Your task to perform on an android device: Toggle the flashlight Image 0: 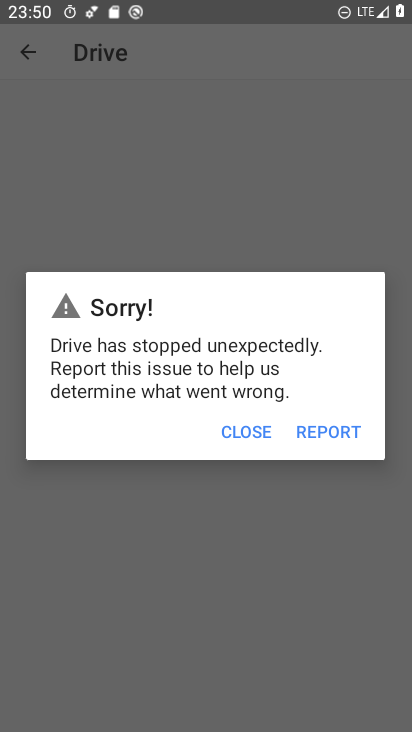
Step 0: press home button
Your task to perform on an android device: Toggle the flashlight Image 1: 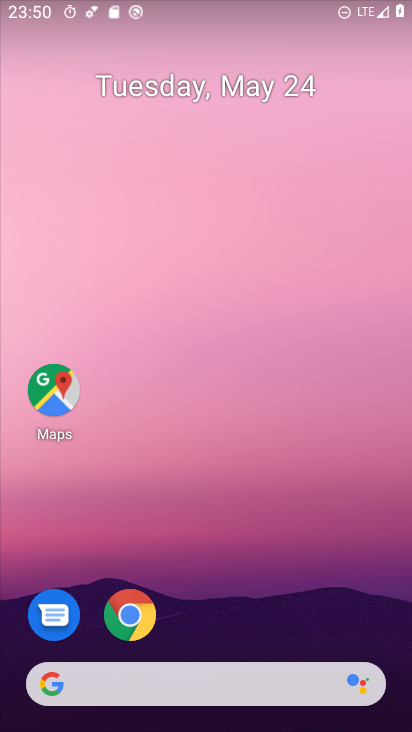
Step 1: drag from (311, 719) to (342, 11)
Your task to perform on an android device: Toggle the flashlight Image 2: 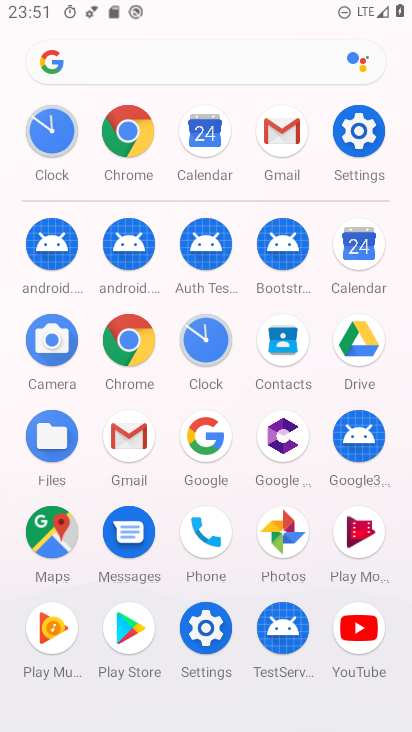
Step 2: click (359, 142)
Your task to perform on an android device: Toggle the flashlight Image 3: 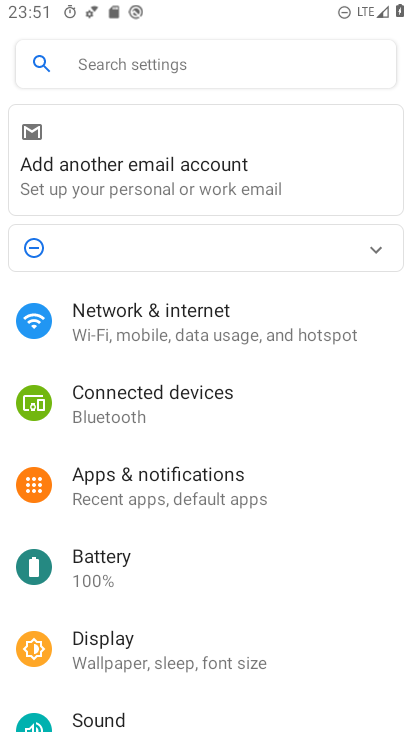
Step 3: click (124, 60)
Your task to perform on an android device: Toggle the flashlight Image 4: 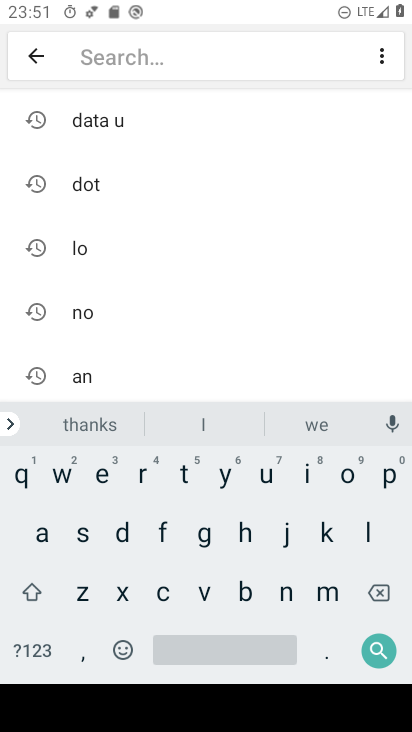
Step 4: click (156, 534)
Your task to perform on an android device: Toggle the flashlight Image 5: 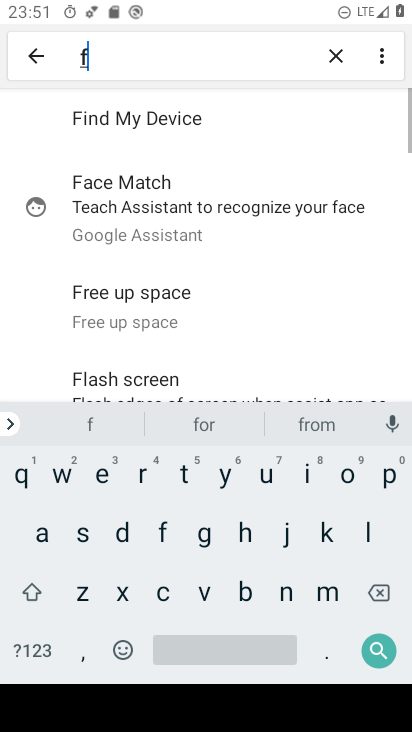
Step 5: click (366, 536)
Your task to perform on an android device: Toggle the flashlight Image 6: 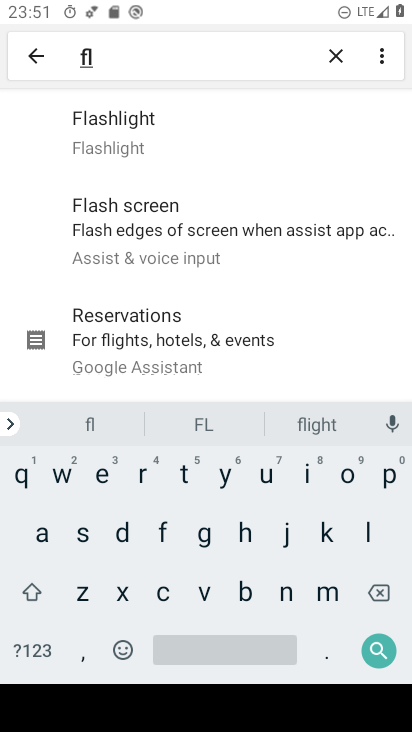
Step 6: click (169, 126)
Your task to perform on an android device: Toggle the flashlight Image 7: 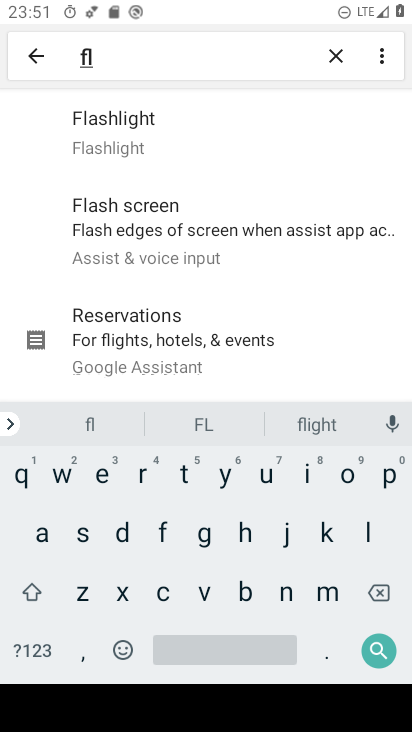
Step 7: click (169, 126)
Your task to perform on an android device: Toggle the flashlight Image 8: 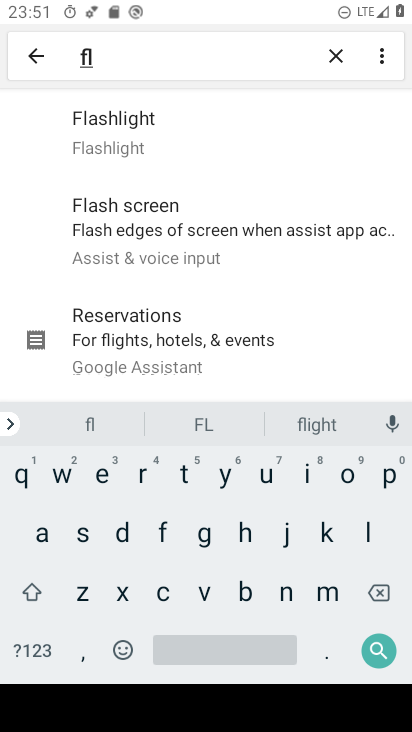
Step 8: task complete